Your task to perform on an android device: Open Google Image 0: 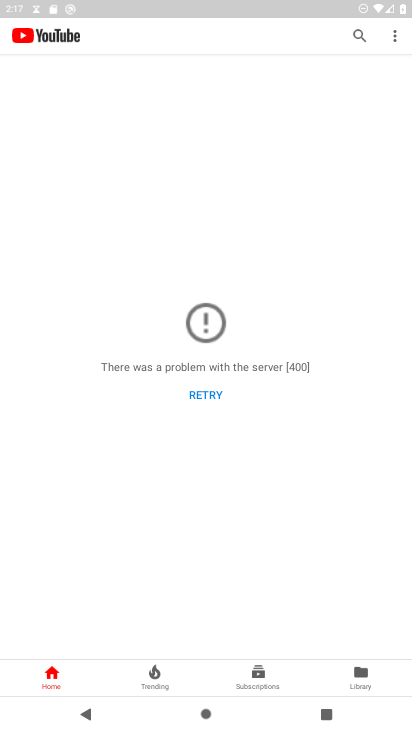
Step 0: press home button
Your task to perform on an android device: Open Google Image 1: 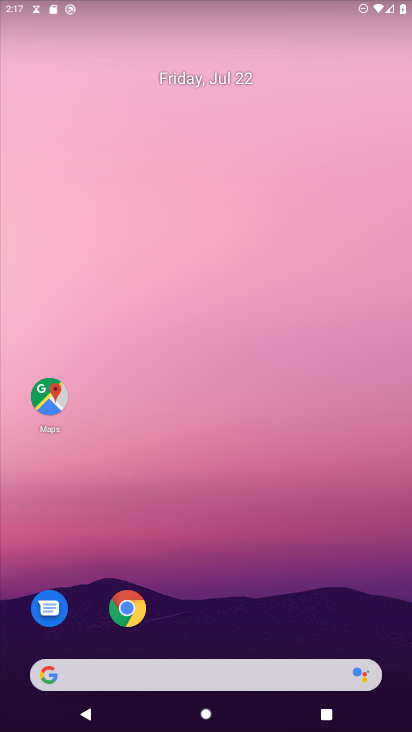
Step 1: click (126, 668)
Your task to perform on an android device: Open Google Image 2: 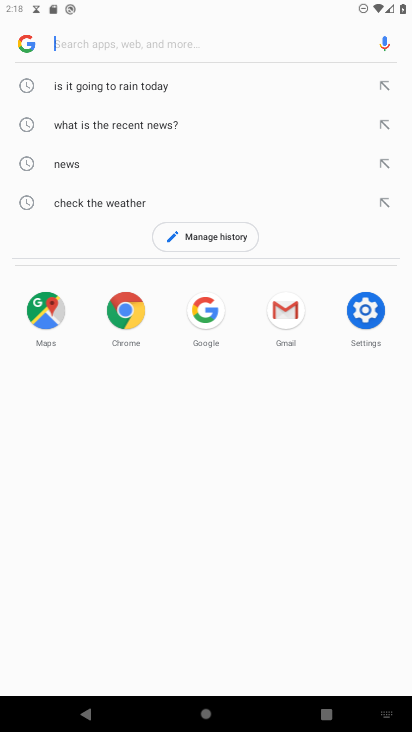
Step 2: task complete